Your task to perform on an android device: find snoozed emails in the gmail app Image 0: 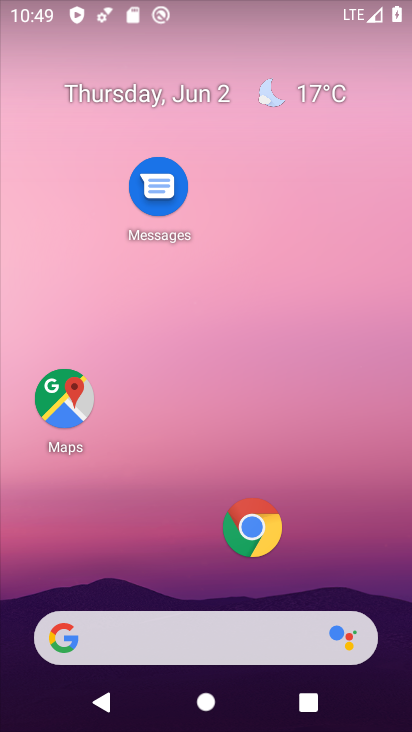
Step 0: drag from (208, 579) to (232, 73)
Your task to perform on an android device: find snoozed emails in the gmail app Image 1: 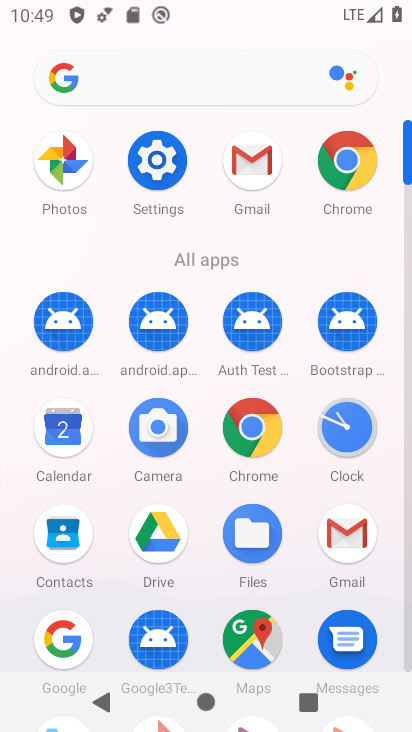
Step 1: click (348, 529)
Your task to perform on an android device: find snoozed emails in the gmail app Image 2: 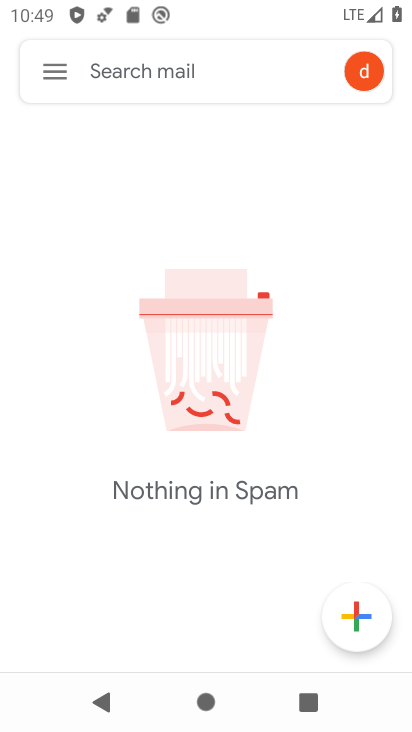
Step 2: click (40, 61)
Your task to perform on an android device: find snoozed emails in the gmail app Image 3: 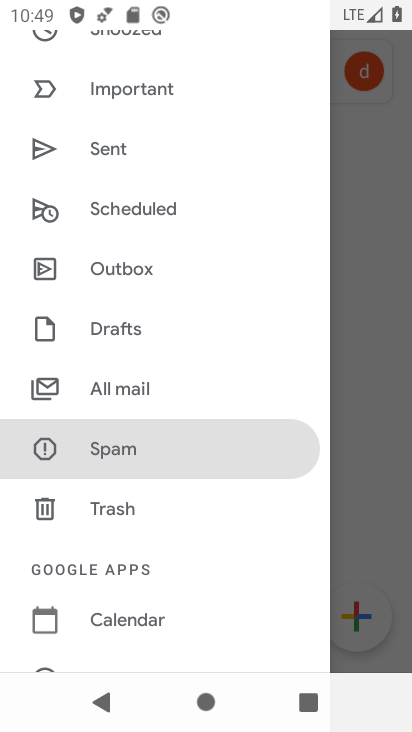
Step 3: drag from (160, 591) to (137, 731)
Your task to perform on an android device: find snoozed emails in the gmail app Image 4: 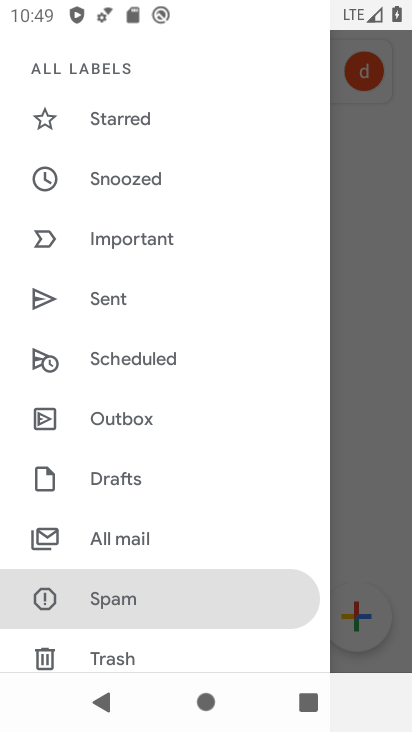
Step 4: click (167, 178)
Your task to perform on an android device: find snoozed emails in the gmail app Image 5: 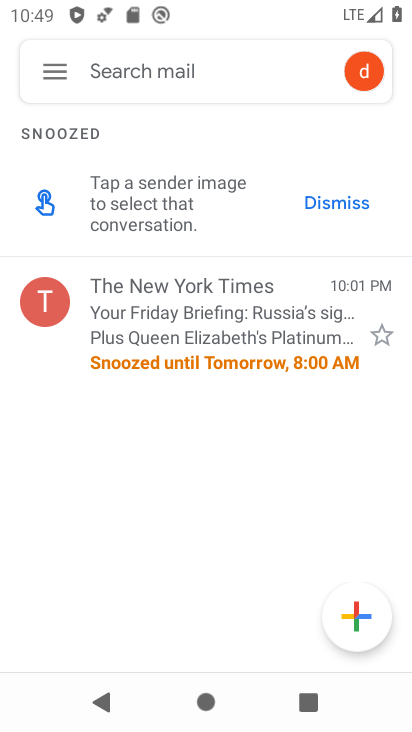
Step 5: task complete